Your task to perform on an android device: View the shopping cart on amazon.com. Search for logitech g pro on amazon.com, select the first entry, add it to the cart, then select checkout. Image 0: 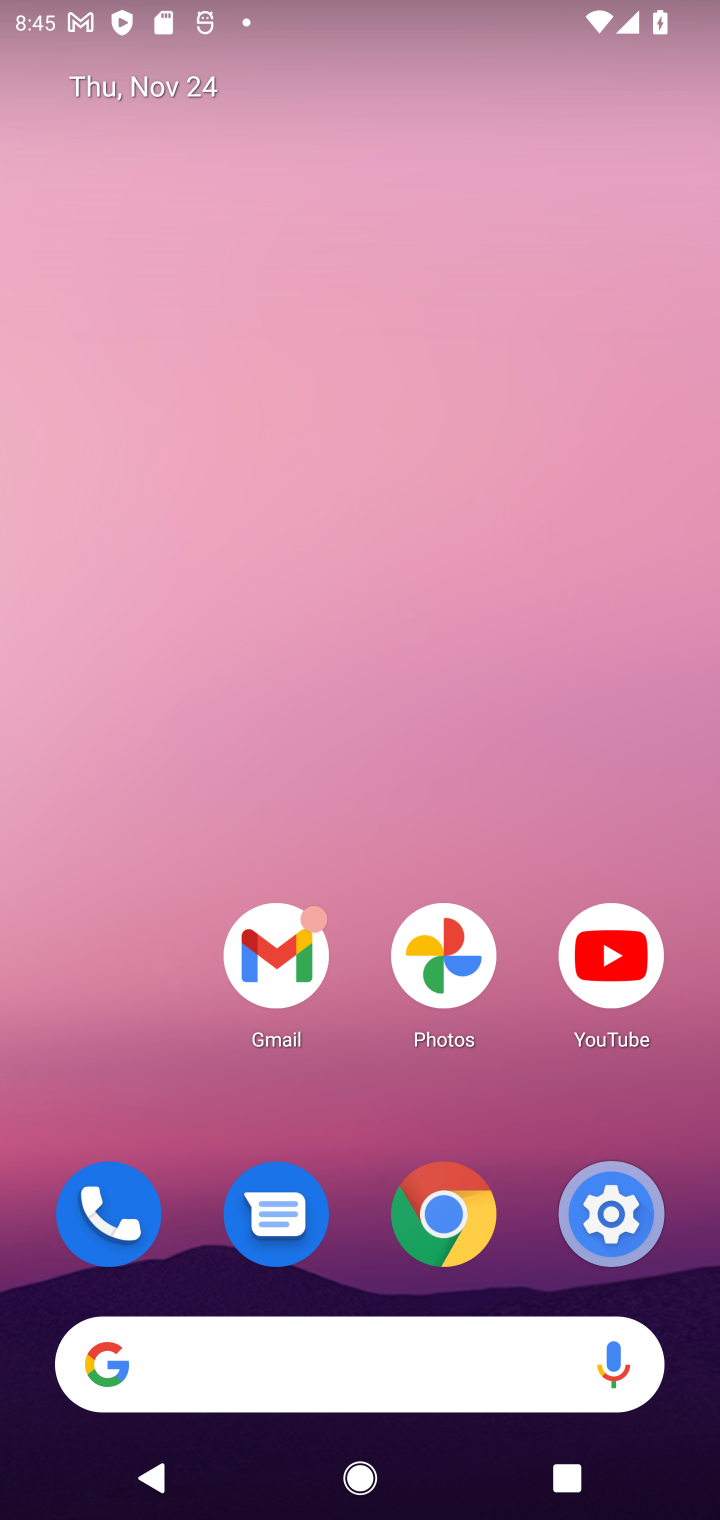
Step 0: click (291, 1380)
Your task to perform on an android device: View the shopping cart on amazon.com. Search for logitech g pro on amazon.com, select the first entry, add it to the cart, then select checkout. Image 1: 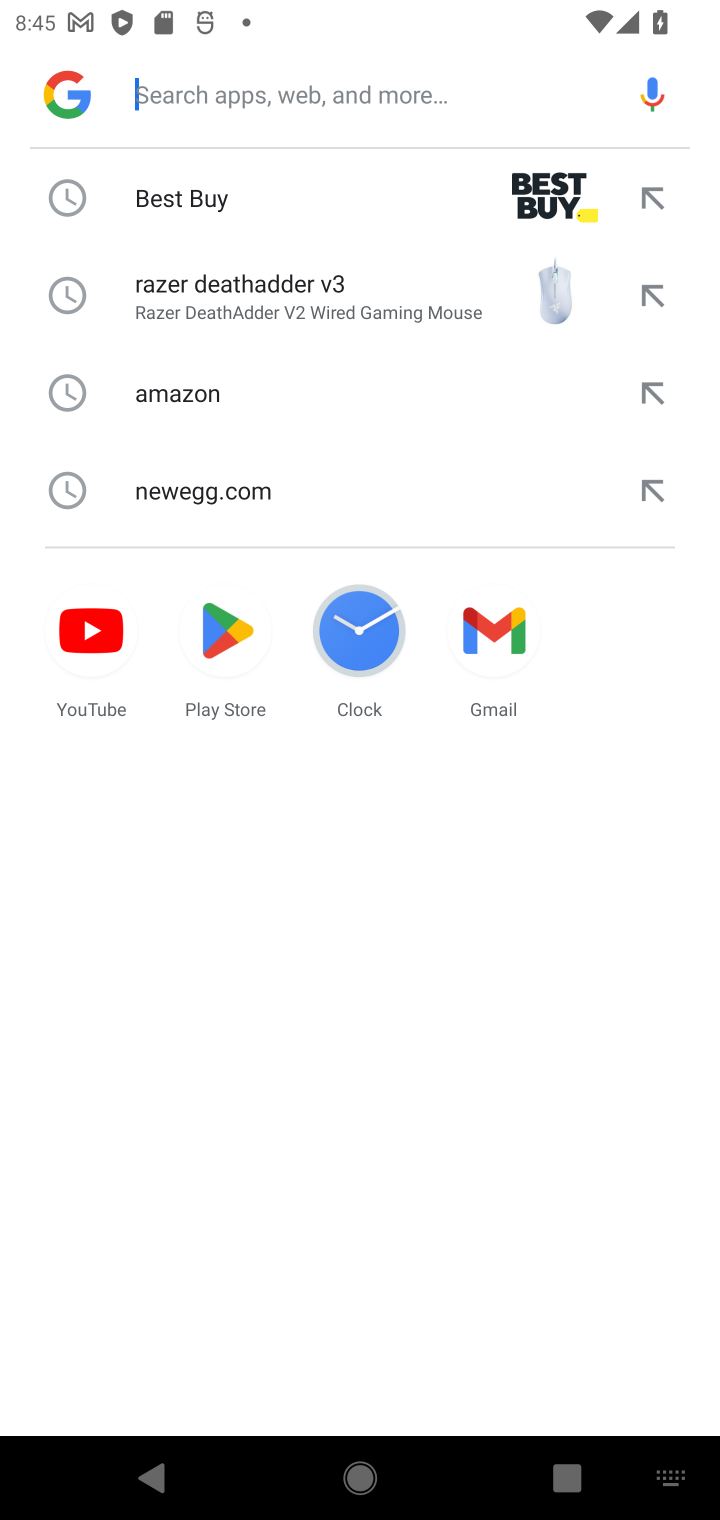
Step 1: type "amazon.com"
Your task to perform on an android device: View the shopping cart on amazon.com. Search for logitech g pro on amazon.com, select the first entry, add it to the cart, then select checkout. Image 2: 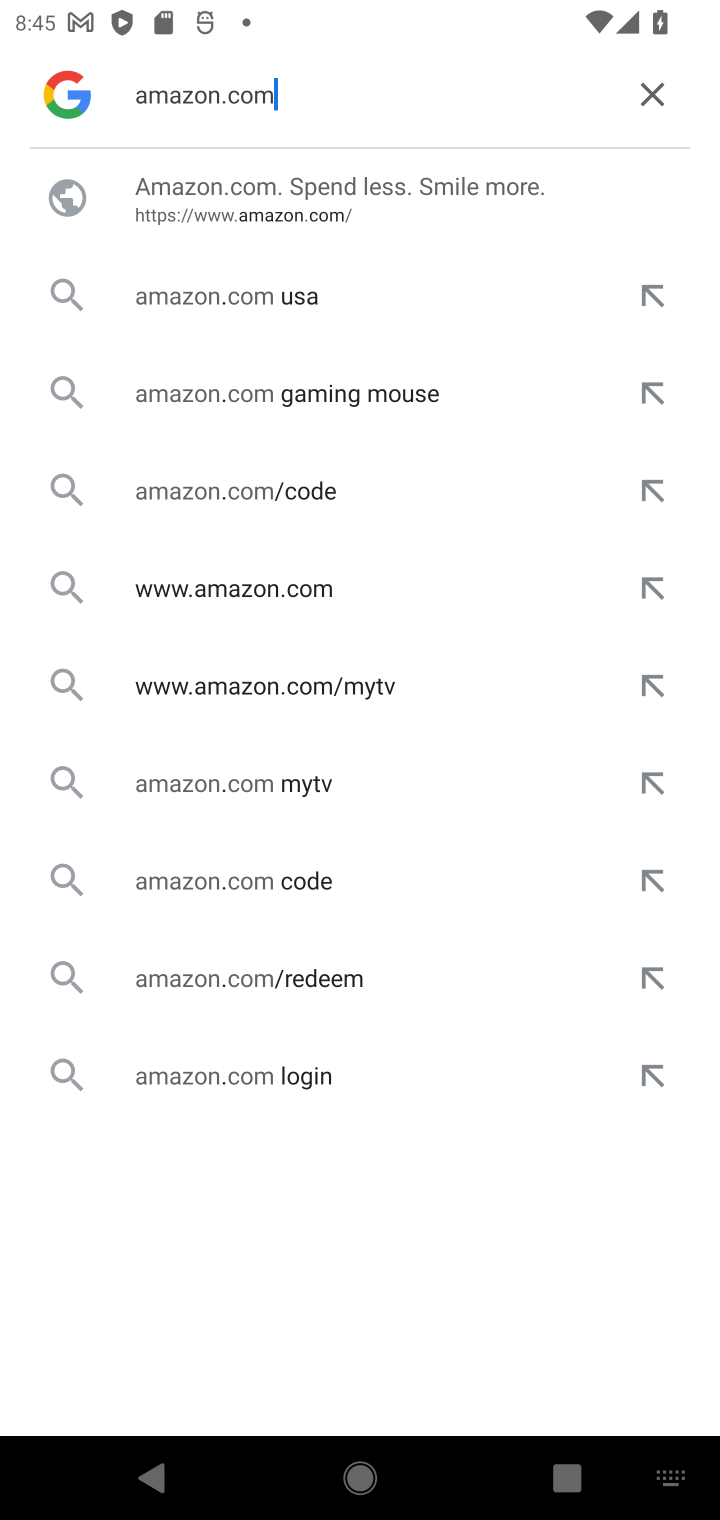
Step 2: click (314, 190)
Your task to perform on an android device: View the shopping cart on amazon.com. Search for logitech g pro on amazon.com, select the first entry, add it to the cart, then select checkout. Image 3: 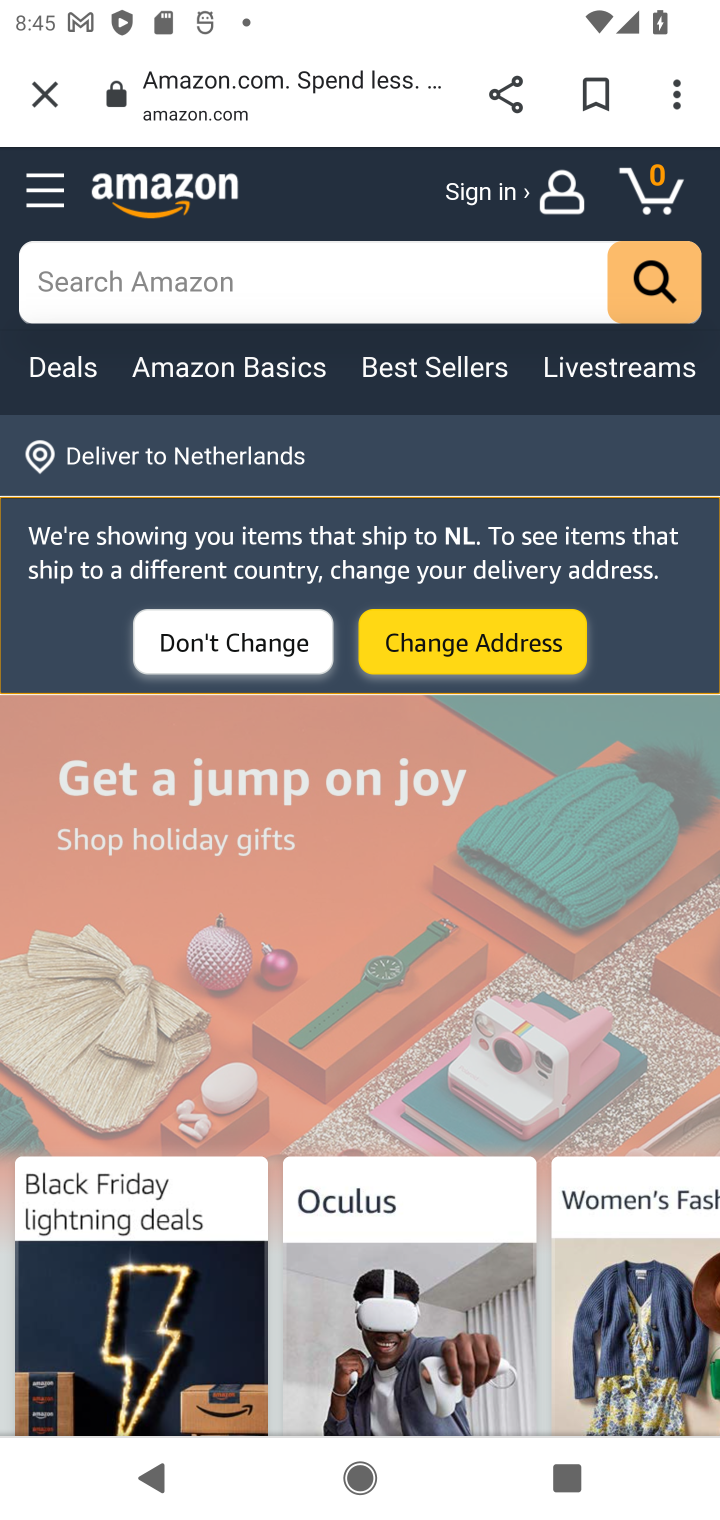
Step 3: click (192, 279)
Your task to perform on an android device: View the shopping cart on amazon.com. Search for logitech g pro on amazon.com, select the first entry, add it to the cart, then select checkout. Image 4: 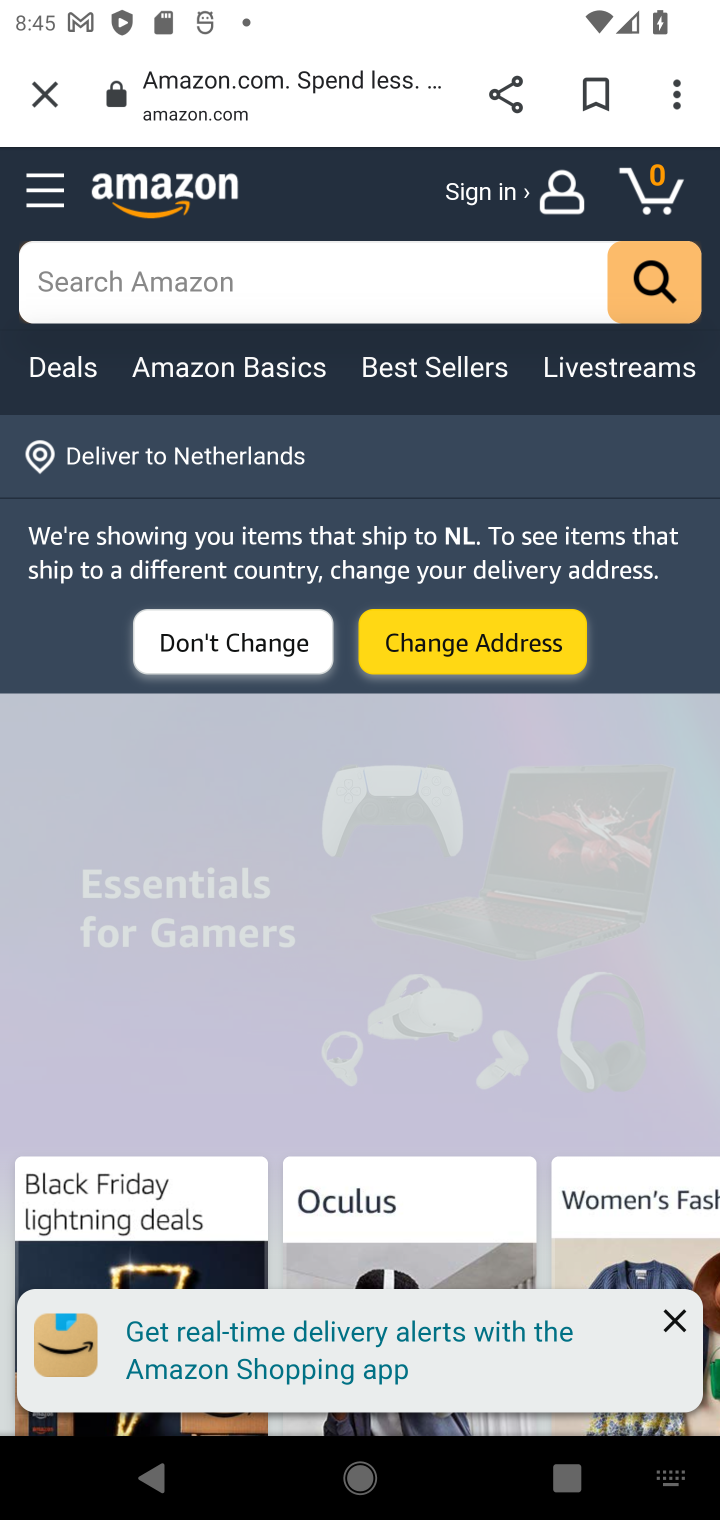
Step 4: type "logitech g pro"
Your task to perform on an android device: View the shopping cart on amazon.com. Search for logitech g pro on amazon.com, select the first entry, add it to the cart, then select checkout. Image 5: 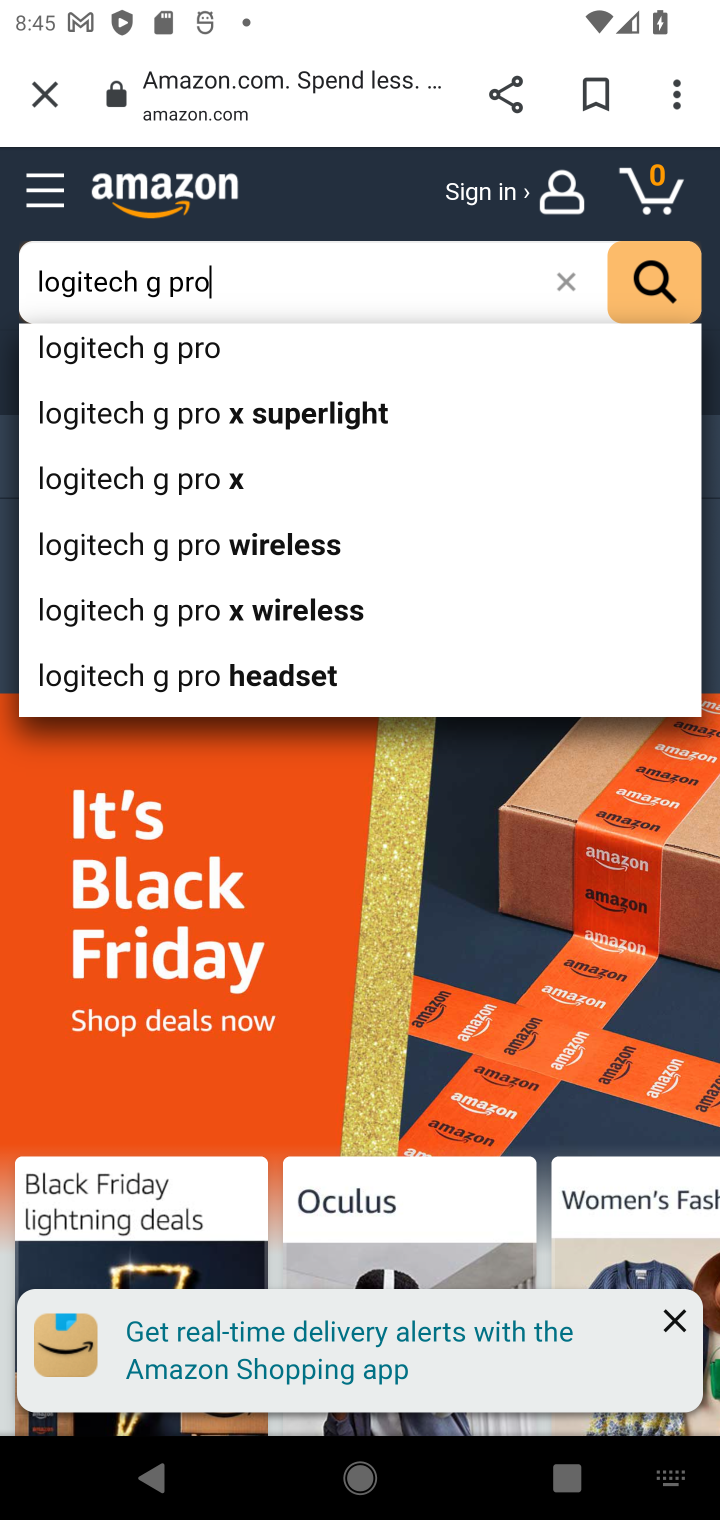
Step 5: click (249, 358)
Your task to perform on an android device: View the shopping cart on amazon.com. Search for logitech g pro on amazon.com, select the first entry, add it to the cart, then select checkout. Image 6: 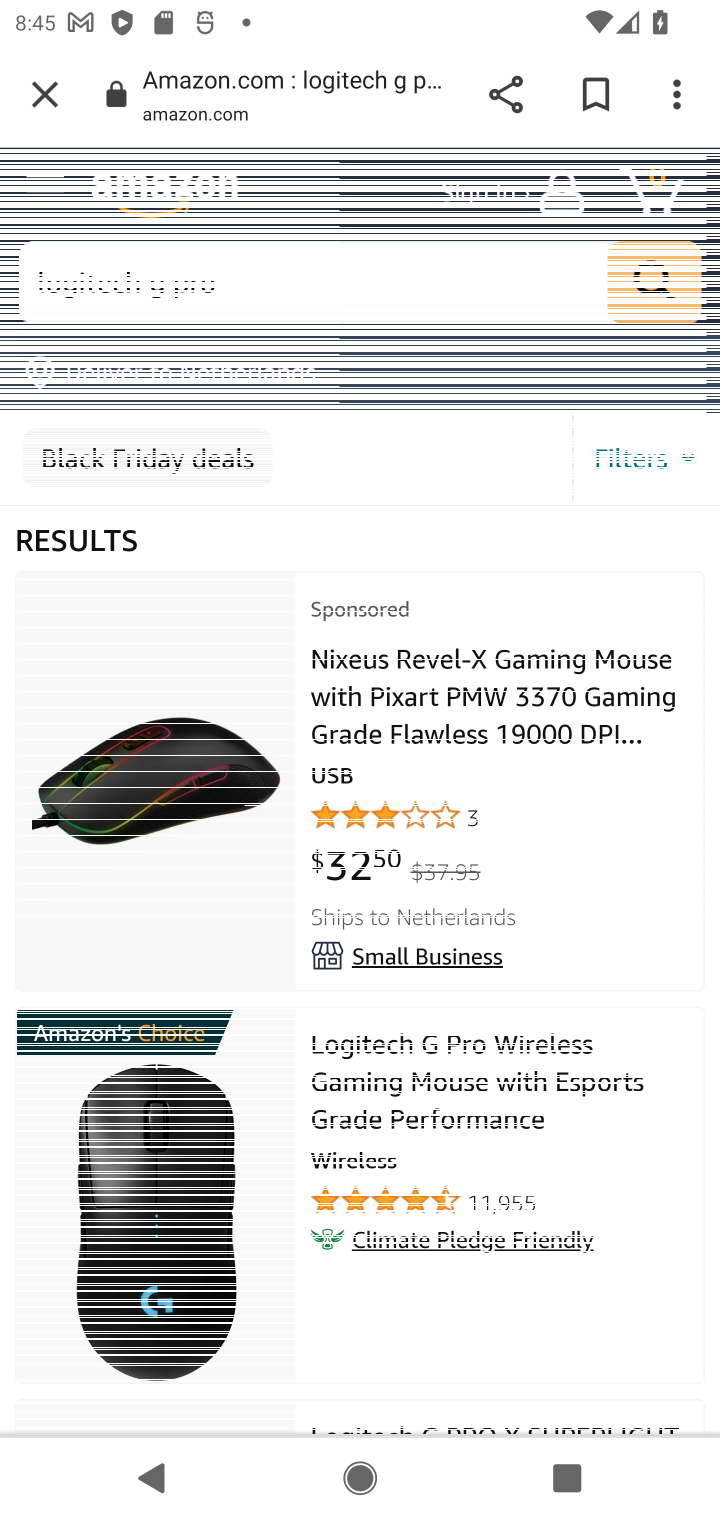
Step 6: click (352, 687)
Your task to perform on an android device: View the shopping cart on amazon.com. Search for logitech g pro on amazon.com, select the first entry, add it to the cart, then select checkout. Image 7: 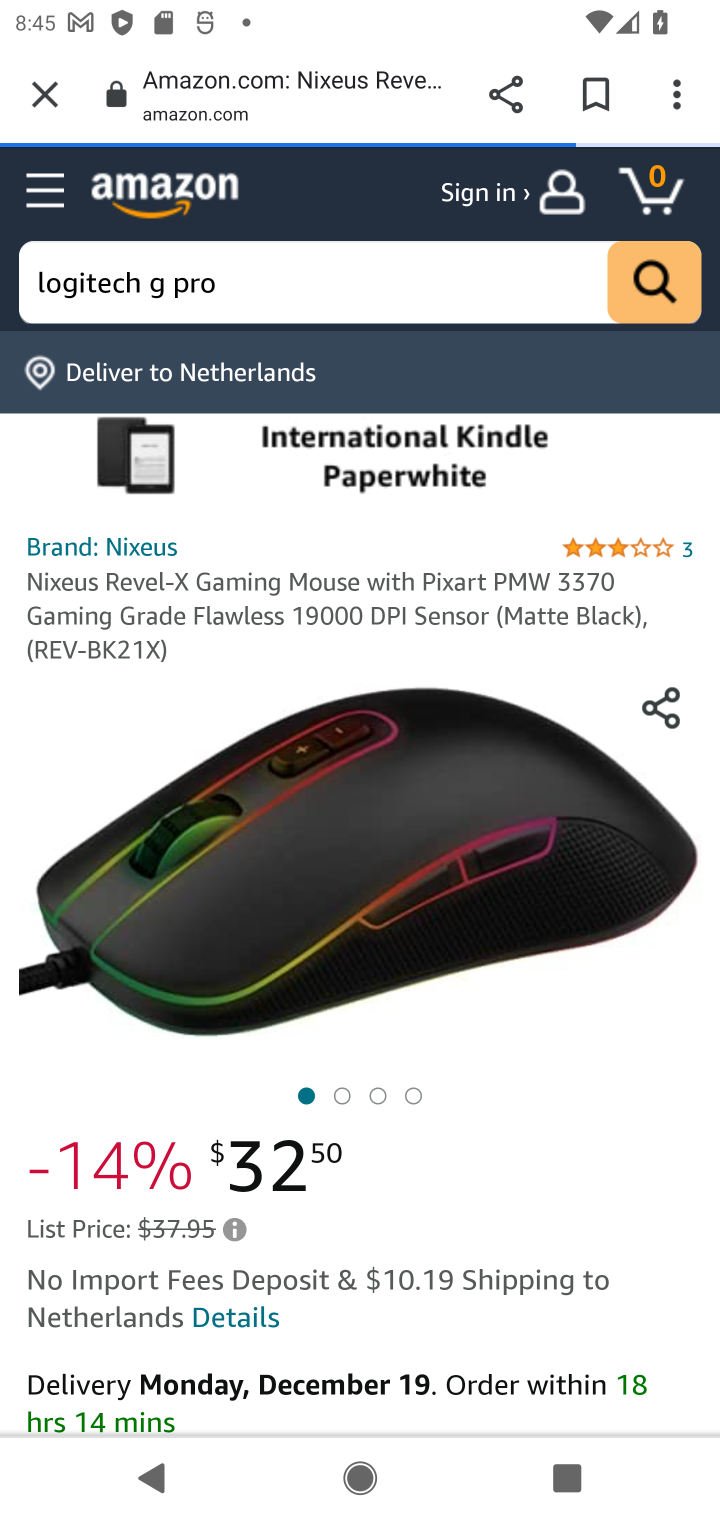
Step 7: drag from (565, 1165) to (612, 355)
Your task to perform on an android device: View the shopping cart on amazon.com. Search for logitech g pro on amazon.com, select the first entry, add it to the cart, then select checkout. Image 8: 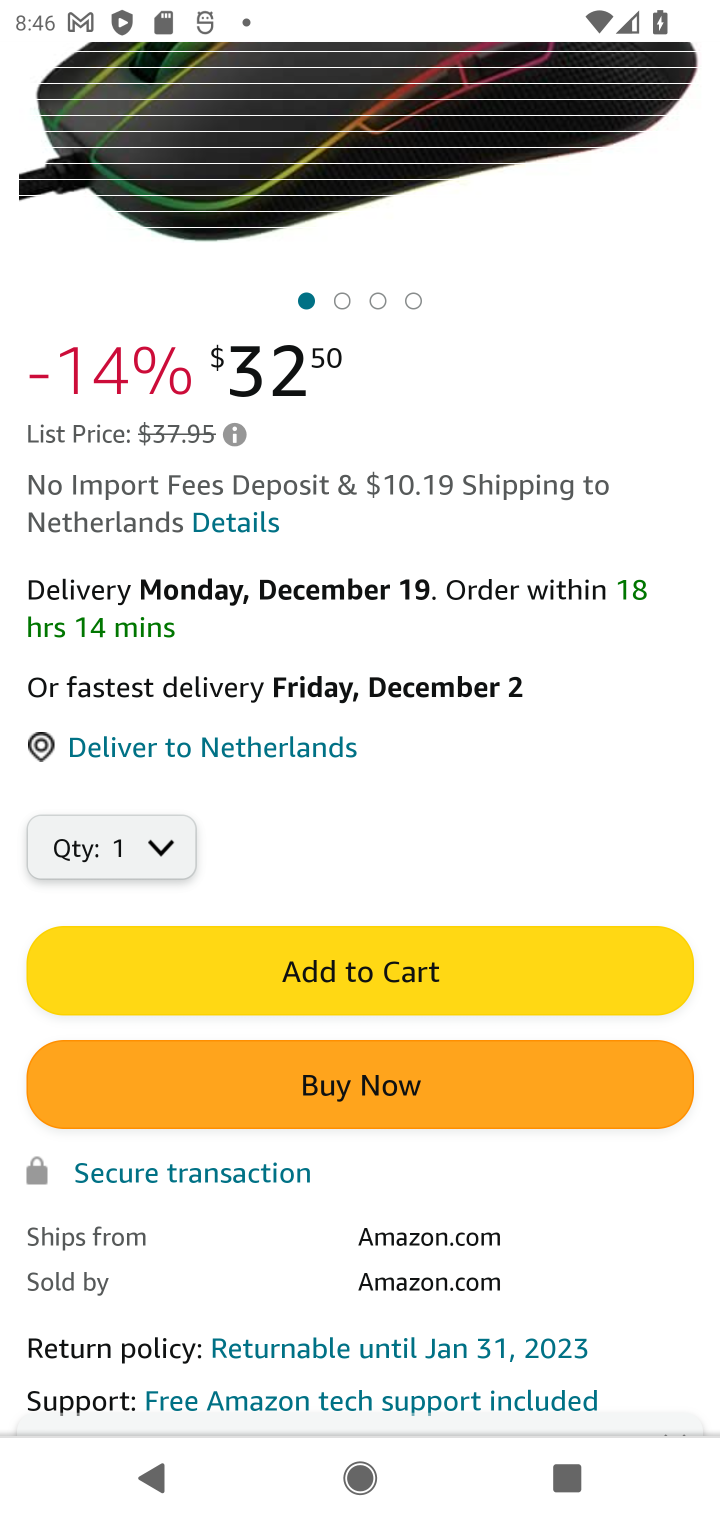
Step 8: click (332, 984)
Your task to perform on an android device: View the shopping cart on amazon.com. Search for logitech g pro on amazon.com, select the first entry, add it to the cart, then select checkout. Image 9: 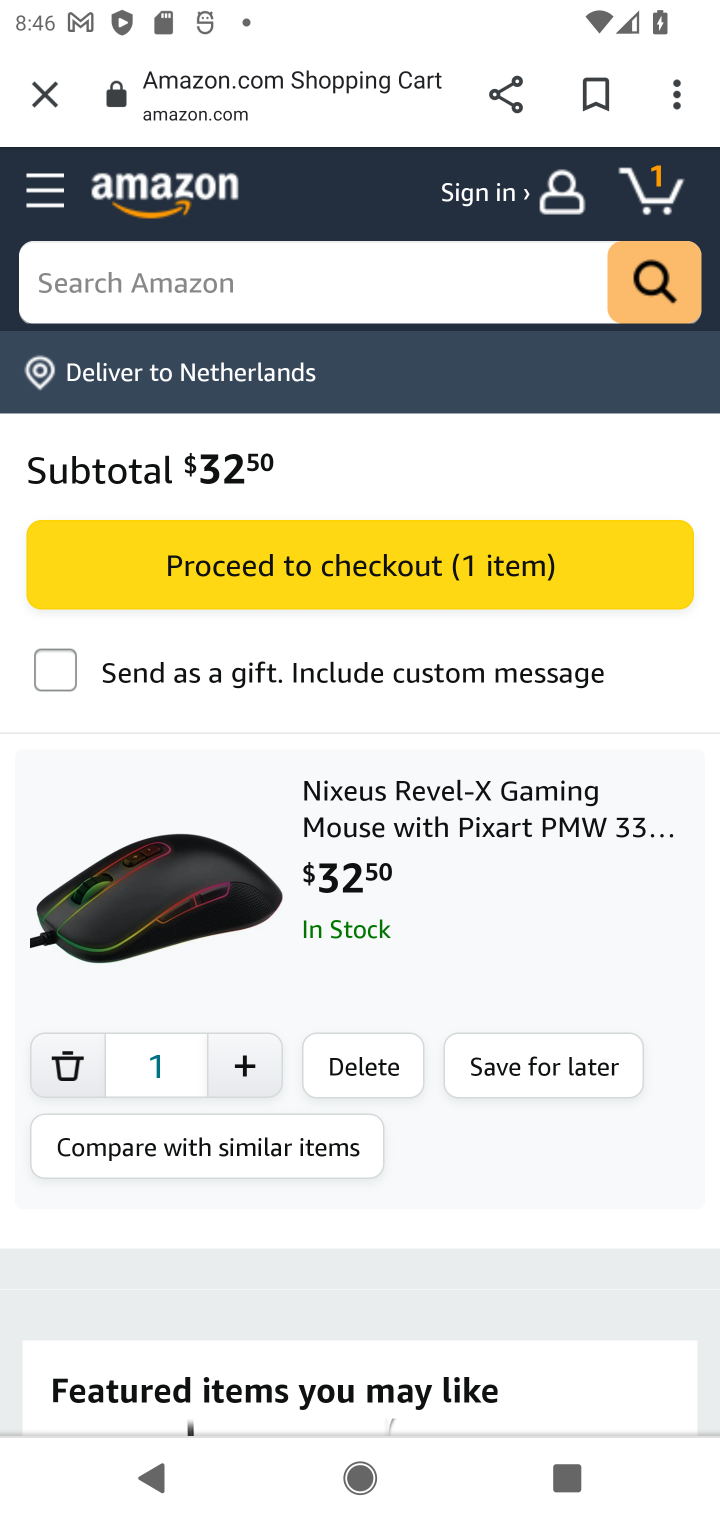
Step 9: task complete